Your task to perform on an android device: Open the web browser Image 0: 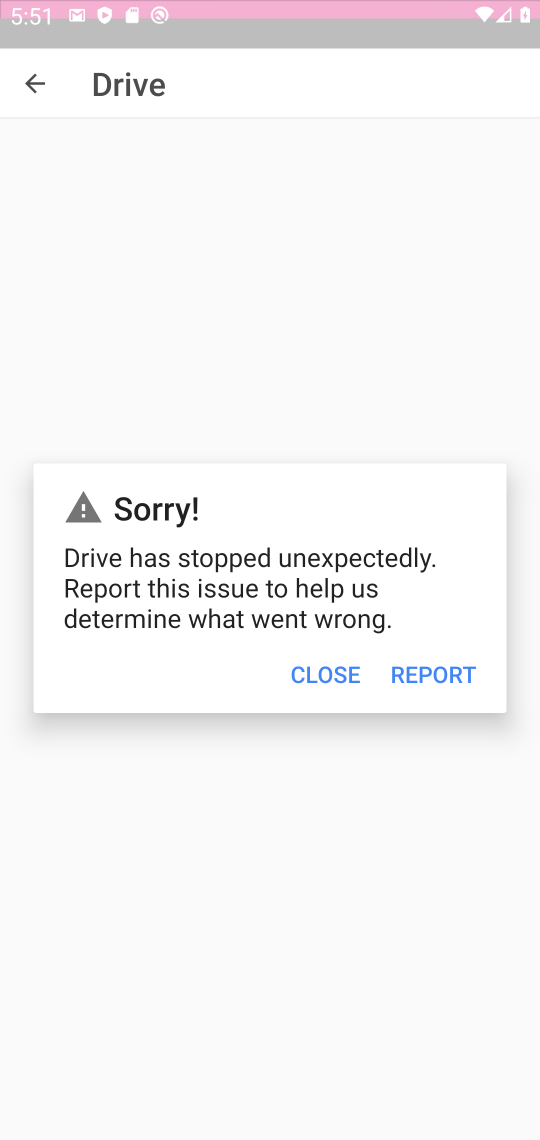
Step 0: press back button
Your task to perform on an android device: Open the web browser Image 1: 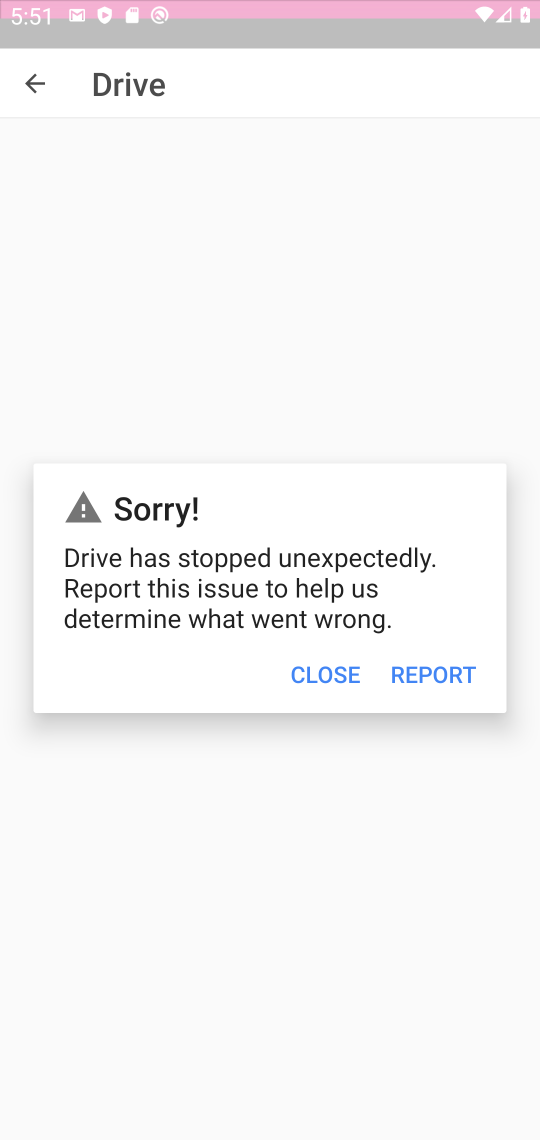
Step 1: click (338, 666)
Your task to perform on an android device: Open the web browser Image 2: 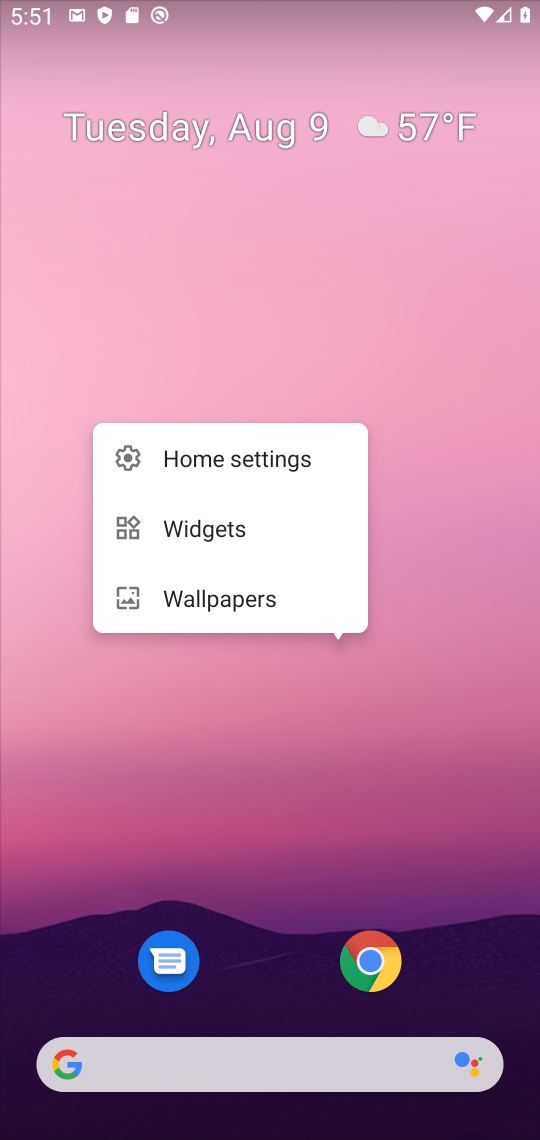
Step 2: drag from (216, 669) to (181, 394)
Your task to perform on an android device: Open the web browser Image 3: 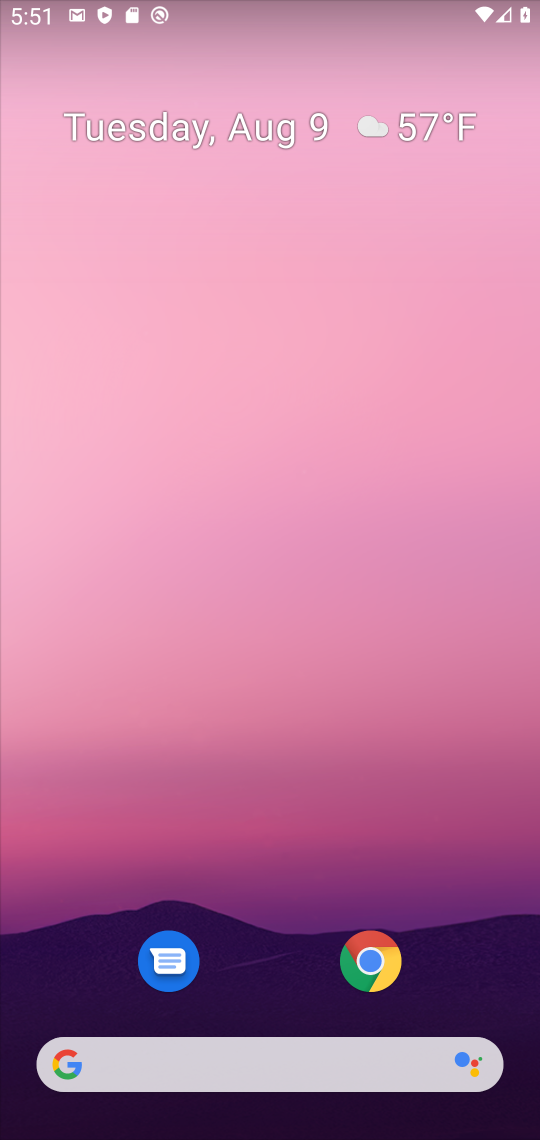
Step 3: click (258, 435)
Your task to perform on an android device: Open the web browser Image 4: 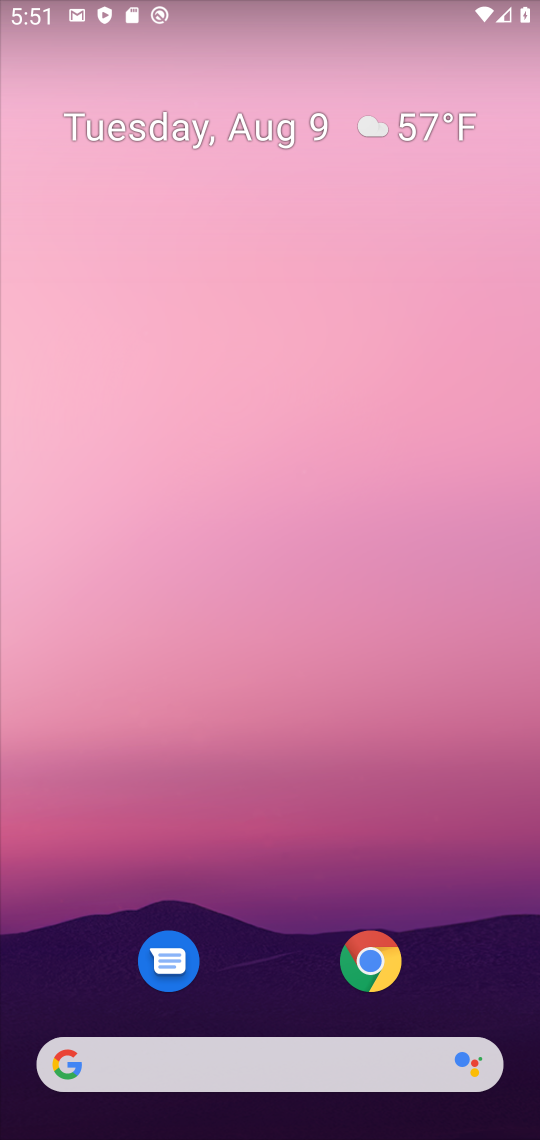
Step 4: drag from (303, 344) to (377, 345)
Your task to perform on an android device: Open the web browser Image 5: 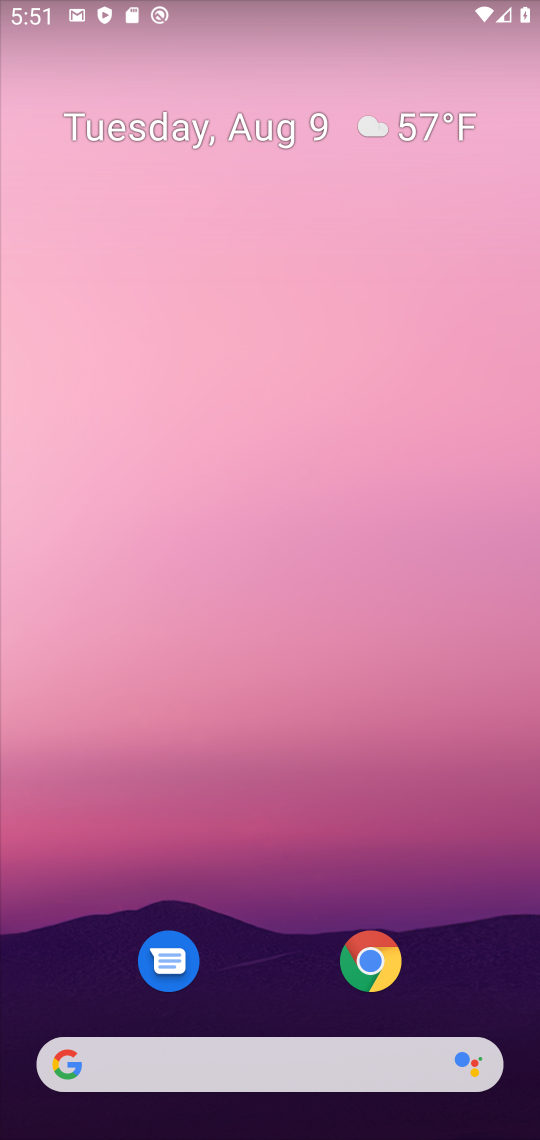
Step 5: drag from (219, 297) to (262, 258)
Your task to perform on an android device: Open the web browser Image 6: 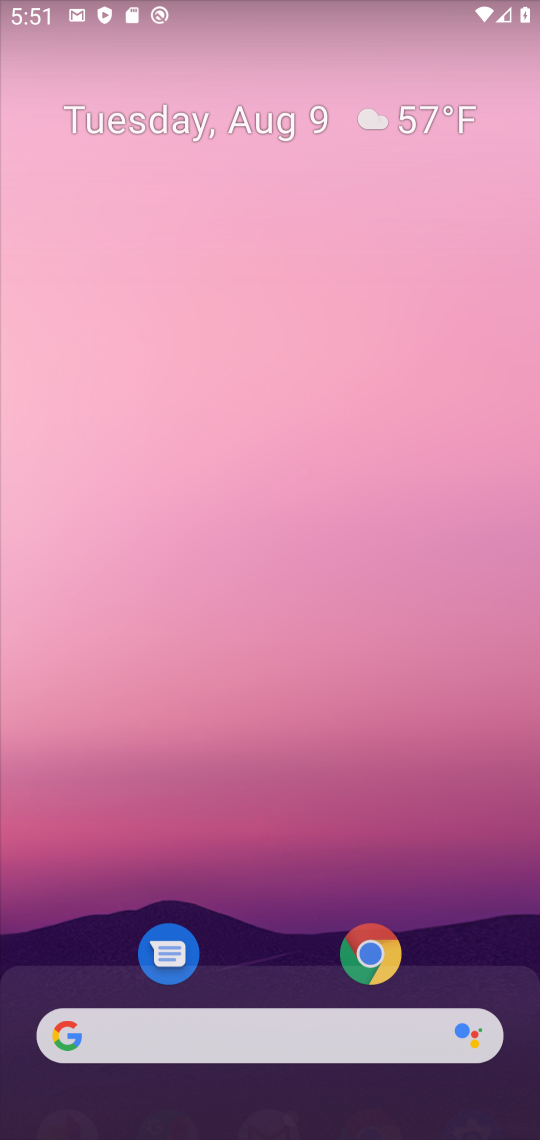
Step 6: drag from (226, 334) to (231, 260)
Your task to perform on an android device: Open the web browser Image 7: 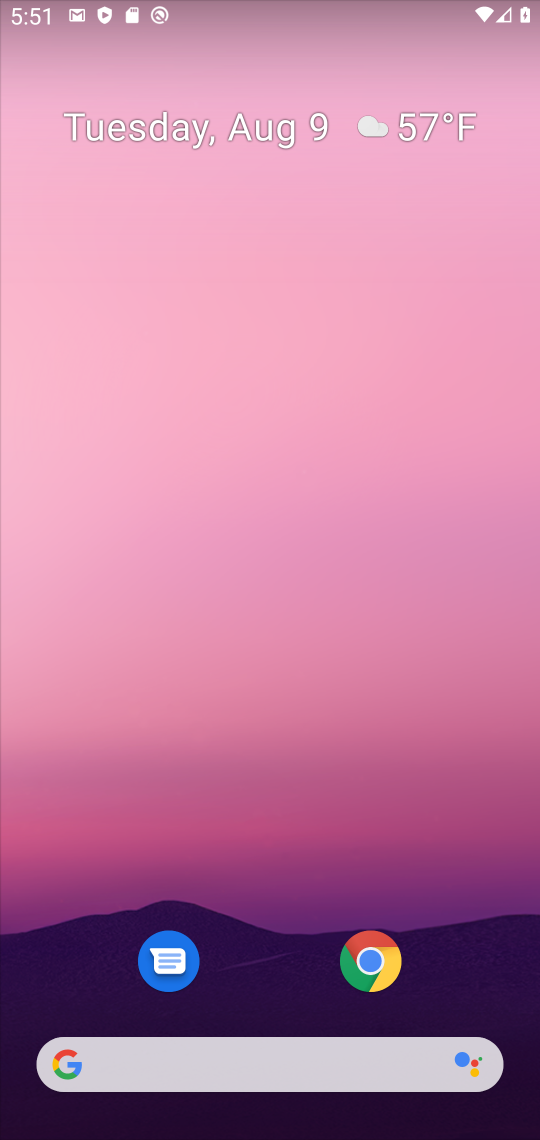
Step 7: drag from (279, 925) to (140, 157)
Your task to perform on an android device: Open the web browser Image 8: 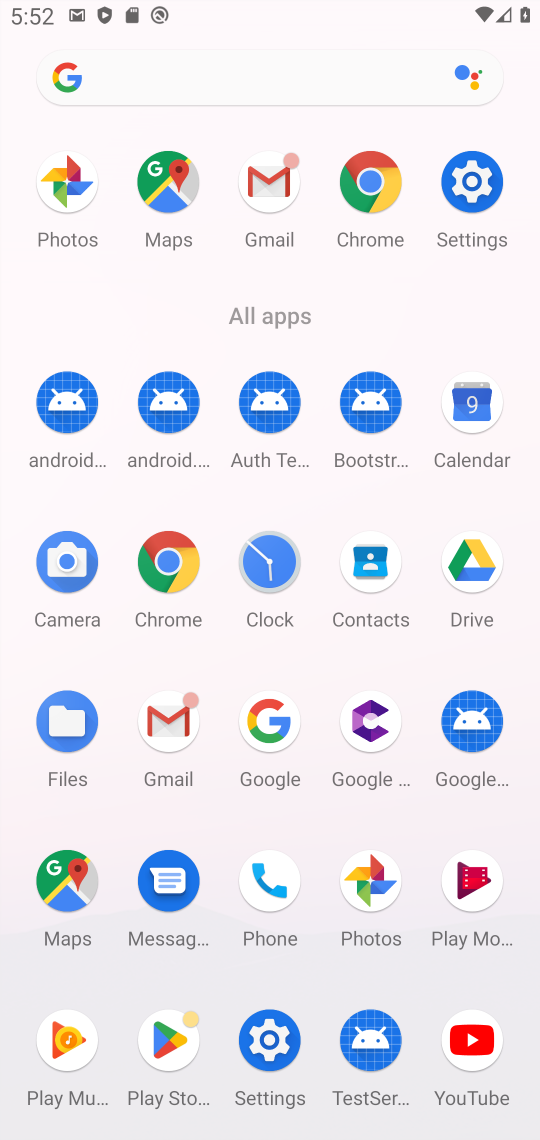
Step 8: click (363, 184)
Your task to perform on an android device: Open the web browser Image 9: 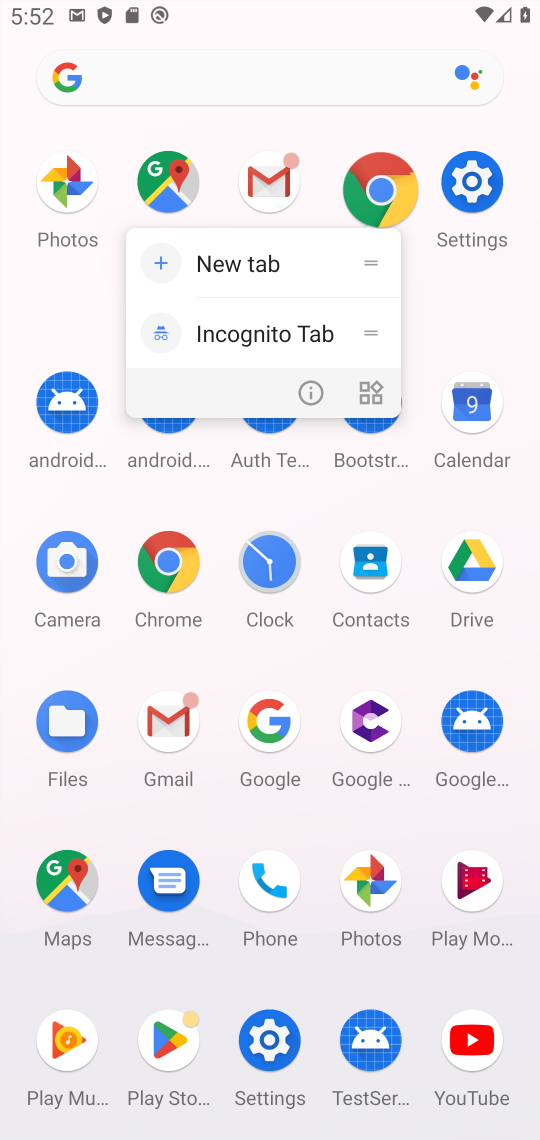
Step 9: click (373, 192)
Your task to perform on an android device: Open the web browser Image 10: 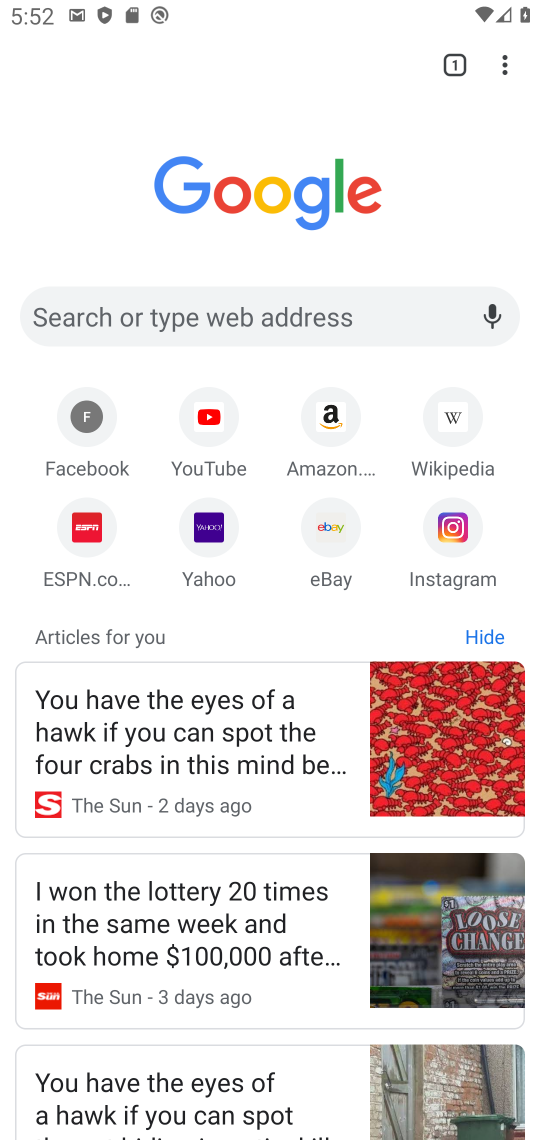
Step 10: task complete